Your task to perform on an android device: change your default location settings in chrome Image 0: 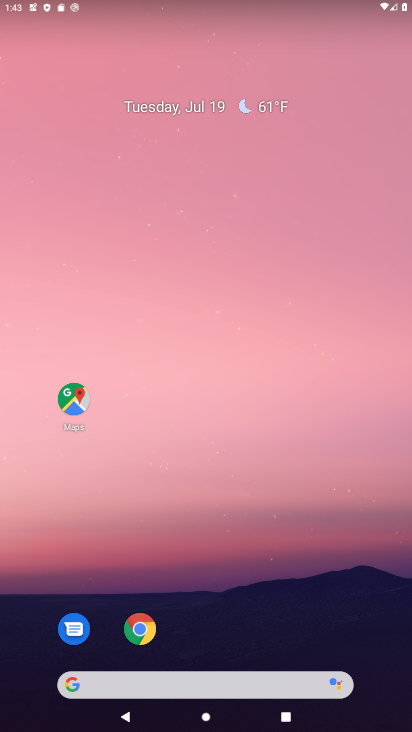
Step 0: click (139, 618)
Your task to perform on an android device: change your default location settings in chrome Image 1: 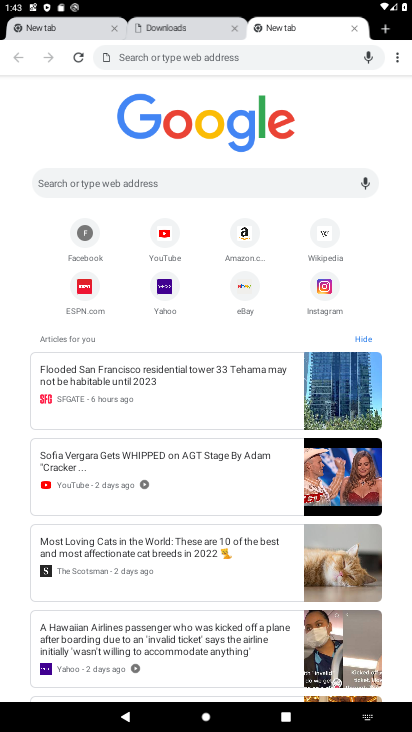
Step 1: drag from (394, 59) to (302, 263)
Your task to perform on an android device: change your default location settings in chrome Image 2: 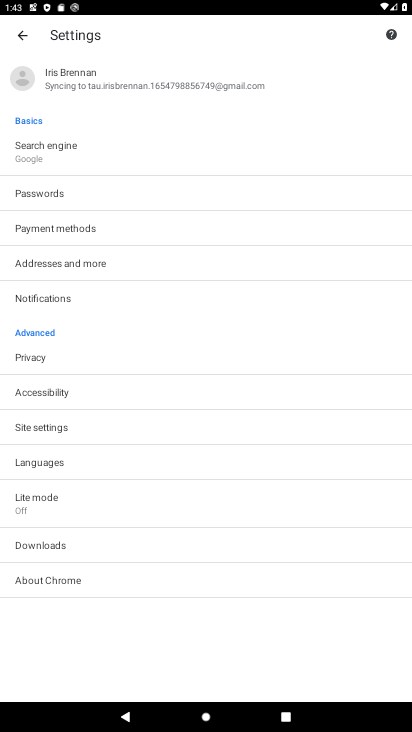
Step 2: click (56, 435)
Your task to perform on an android device: change your default location settings in chrome Image 3: 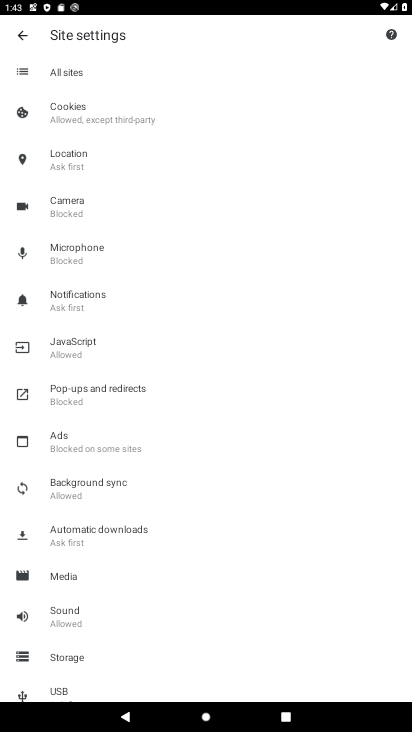
Step 3: click (90, 165)
Your task to perform on an android device: change your default location settings in chrome Image 4: 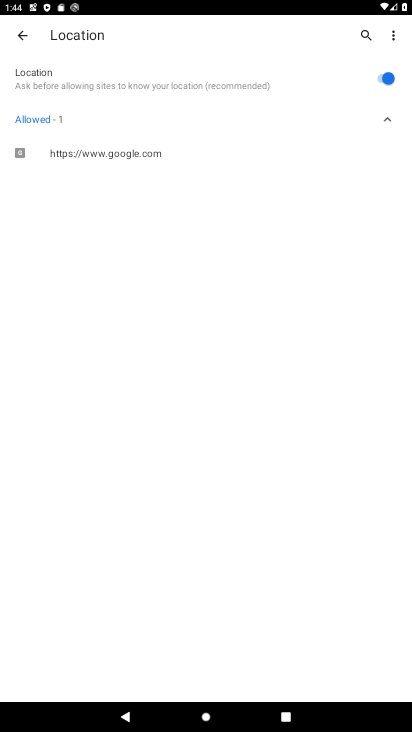
Step 4: click (380, 85)
Your task to perform on an android device: change your default location settings in chrome Image 5: 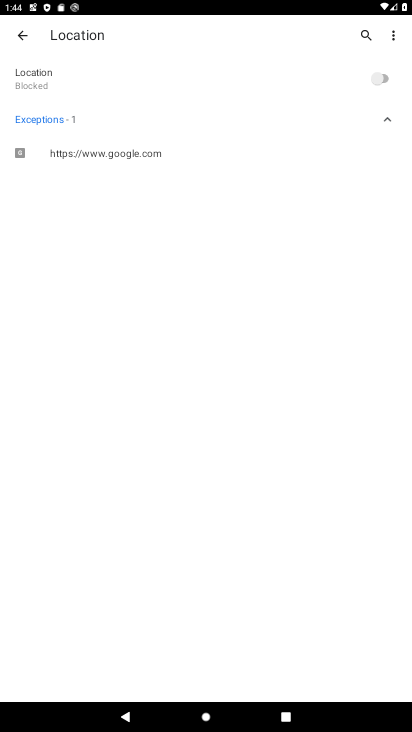
Step 5: task complete